Your task to perform on an android device: clear all cookies in the chrome app Image 0: 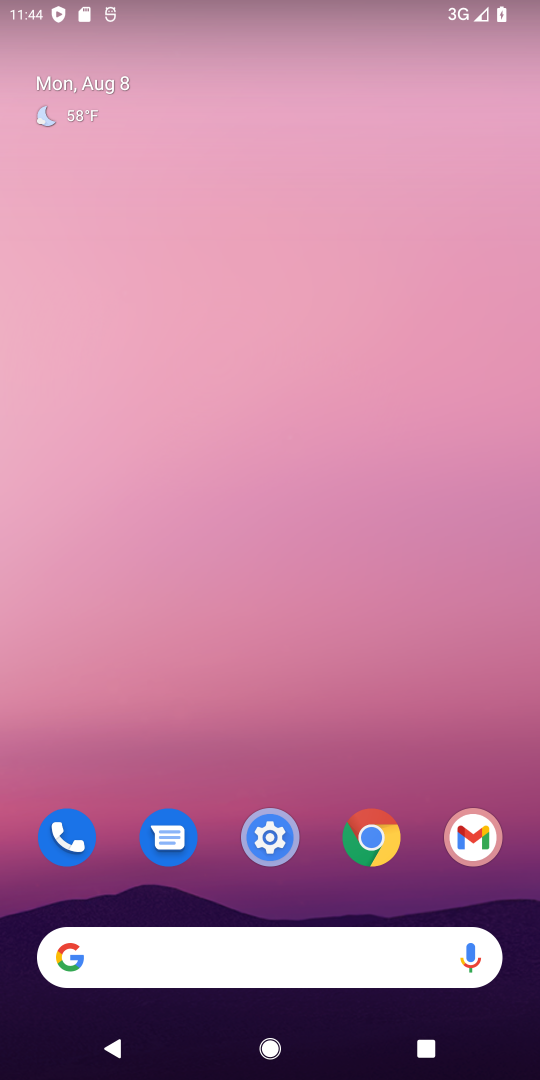
Step 0: click (360, 849)
Your task to perform on an android device: clear all cookies in the chrome app Image 1: 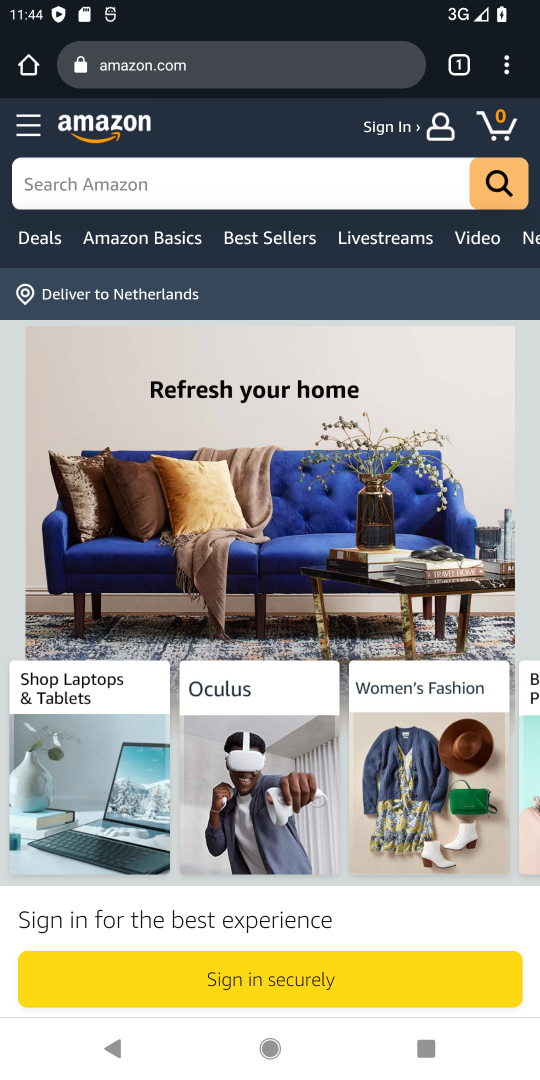
Step 1: click (532, 71)
Your task to perform on an android device: clear all cookies in the chrome app Image 2: 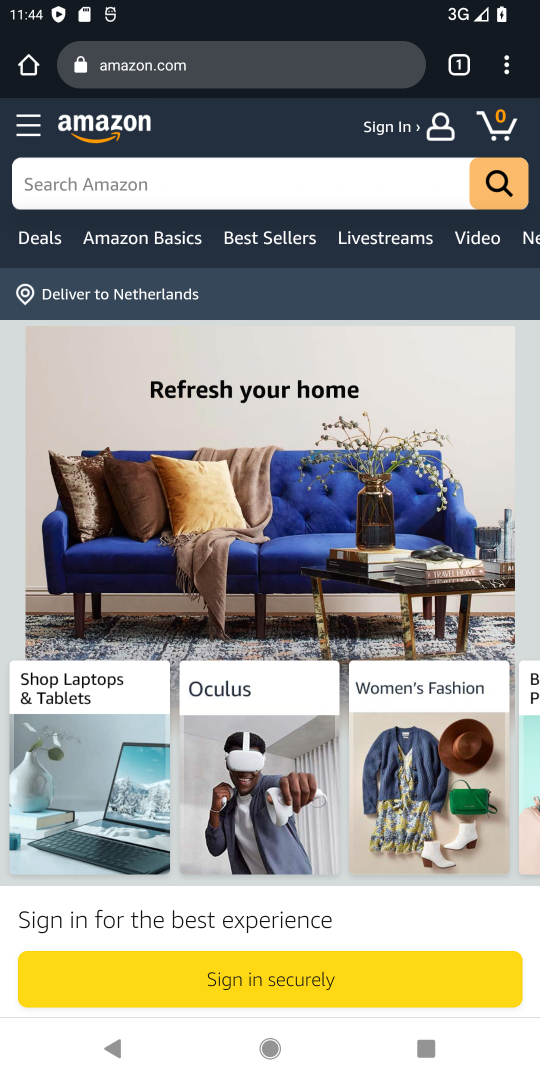
Step 2: click (507, 70)
Your task to perform on an android device: clear all cookies in the chrome app Image 3: 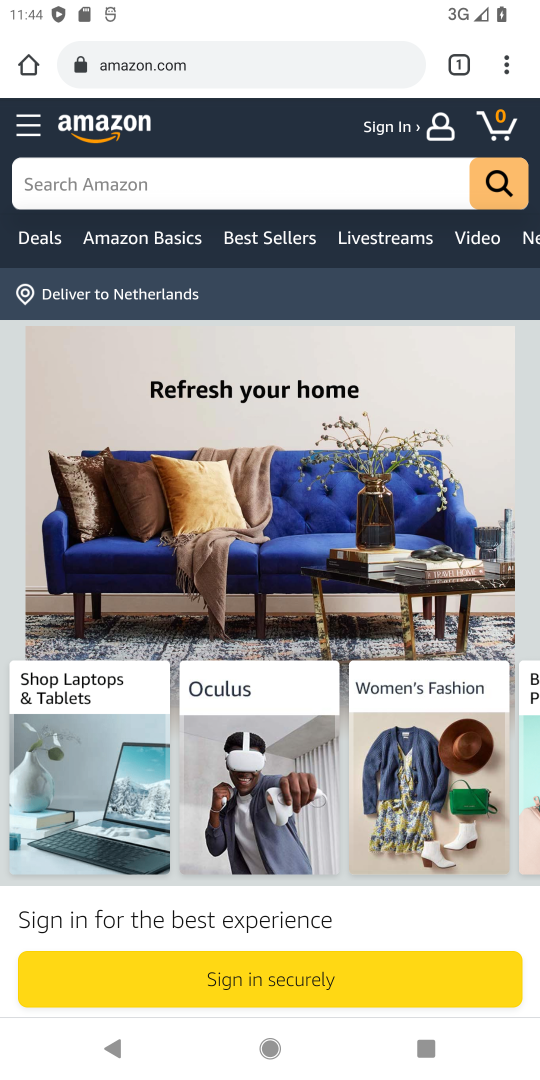
Step 3: click (507, 70)
Your task to perform on an android device: clear all cookies in the chrome app Image 4: 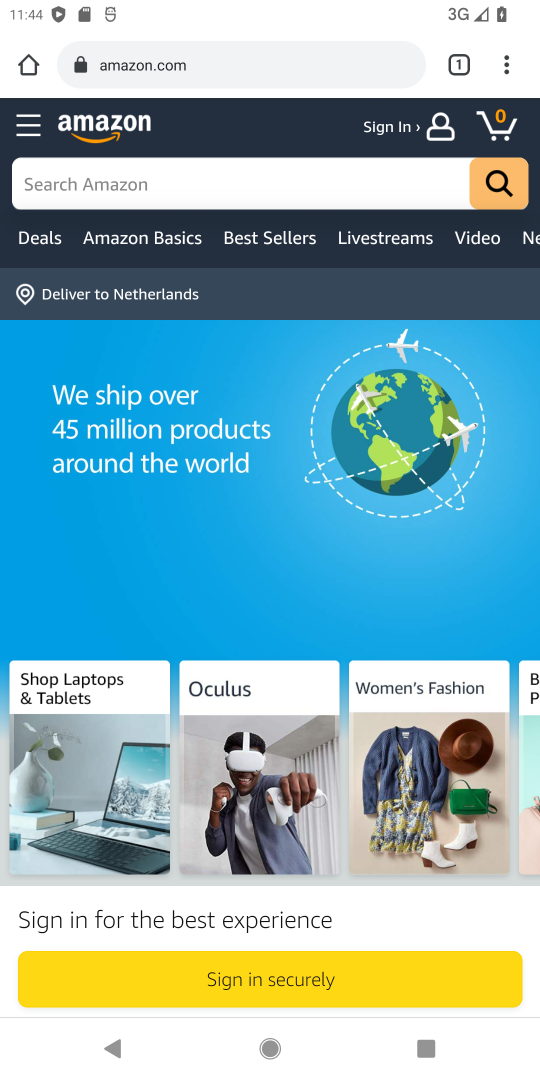
Step 4: task complete